Your task to perform on an android device: open app "Google Play Games" Image 0: 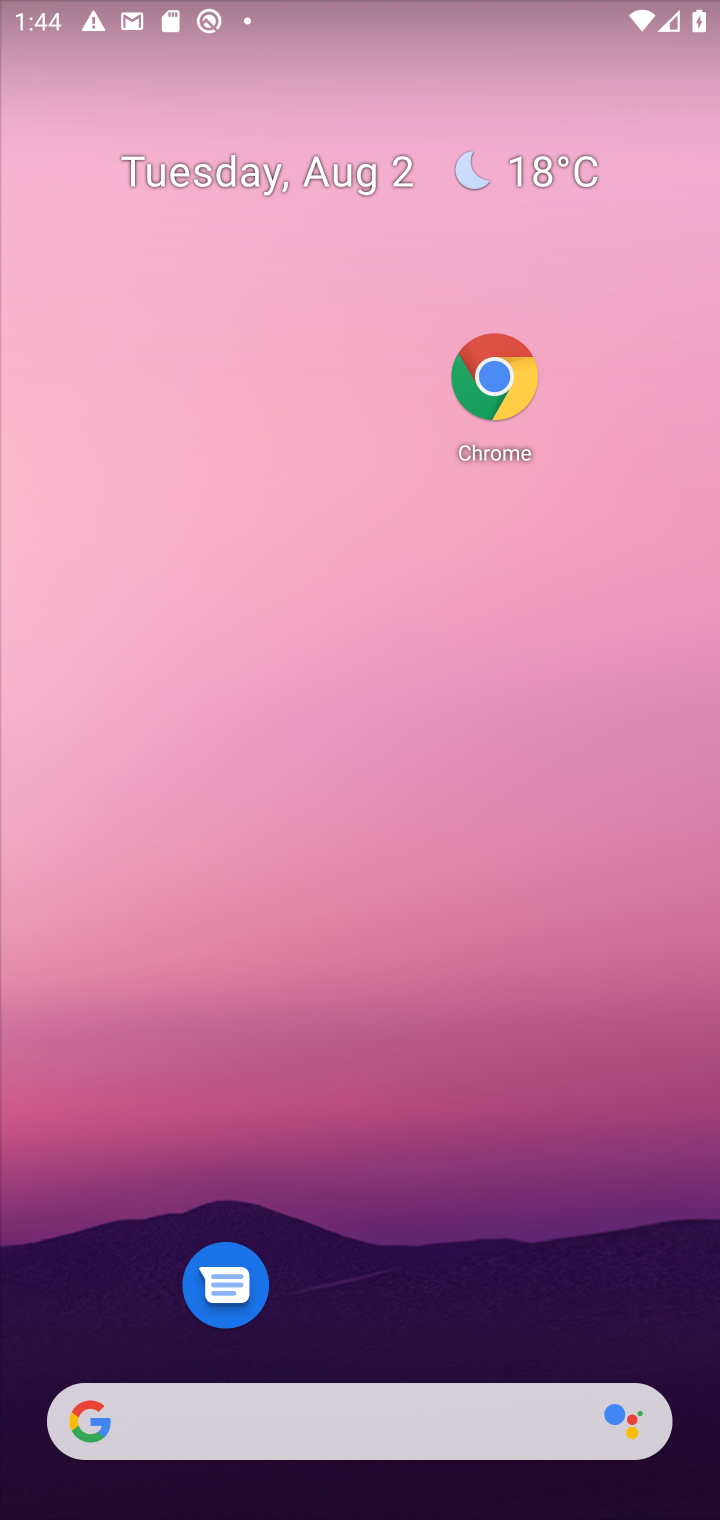
Step 0: press home button
Your task to perform on an android device: open app "Google Play Games" Image 1: 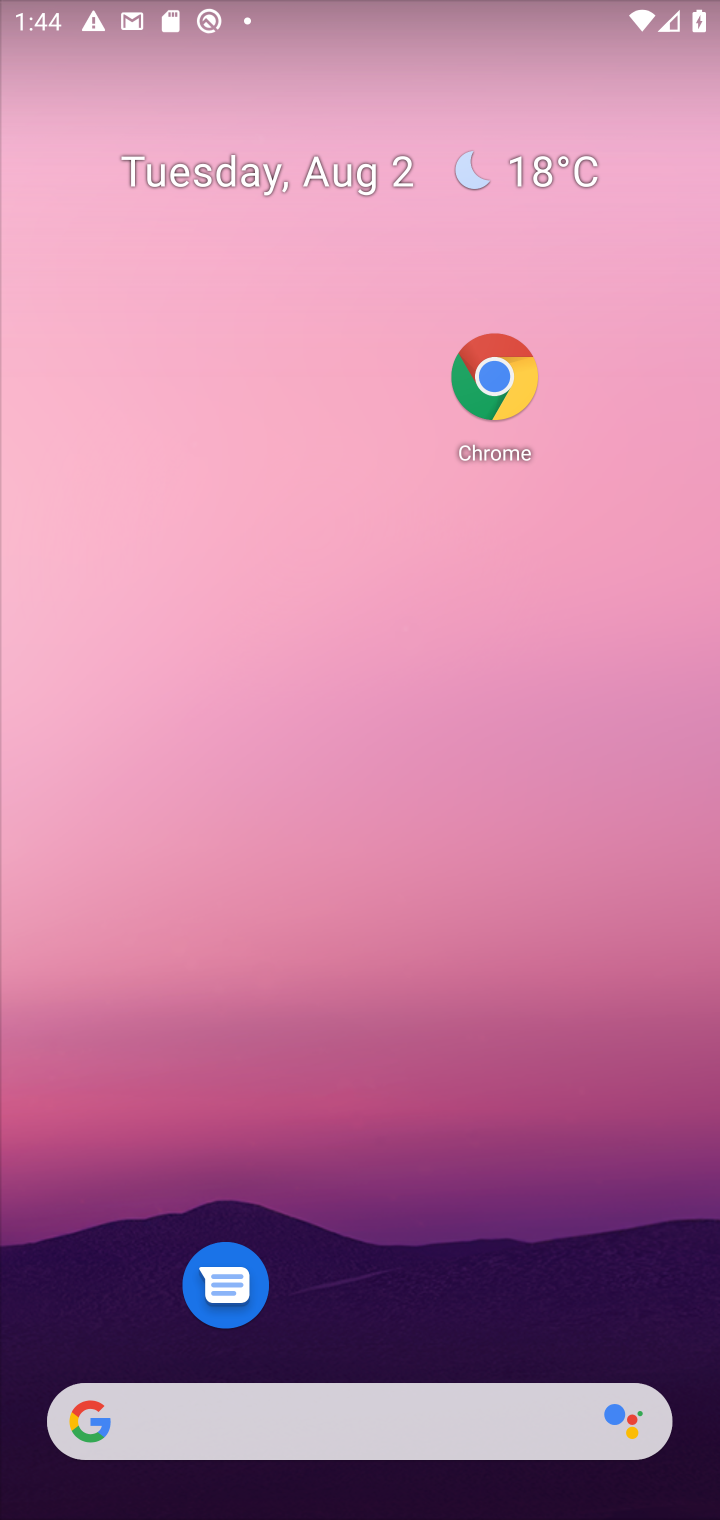
Step 1: drag from (571, 1209) to (576, 510)
Your task to perform on an android device: open app "Google Play Games" Image 2: 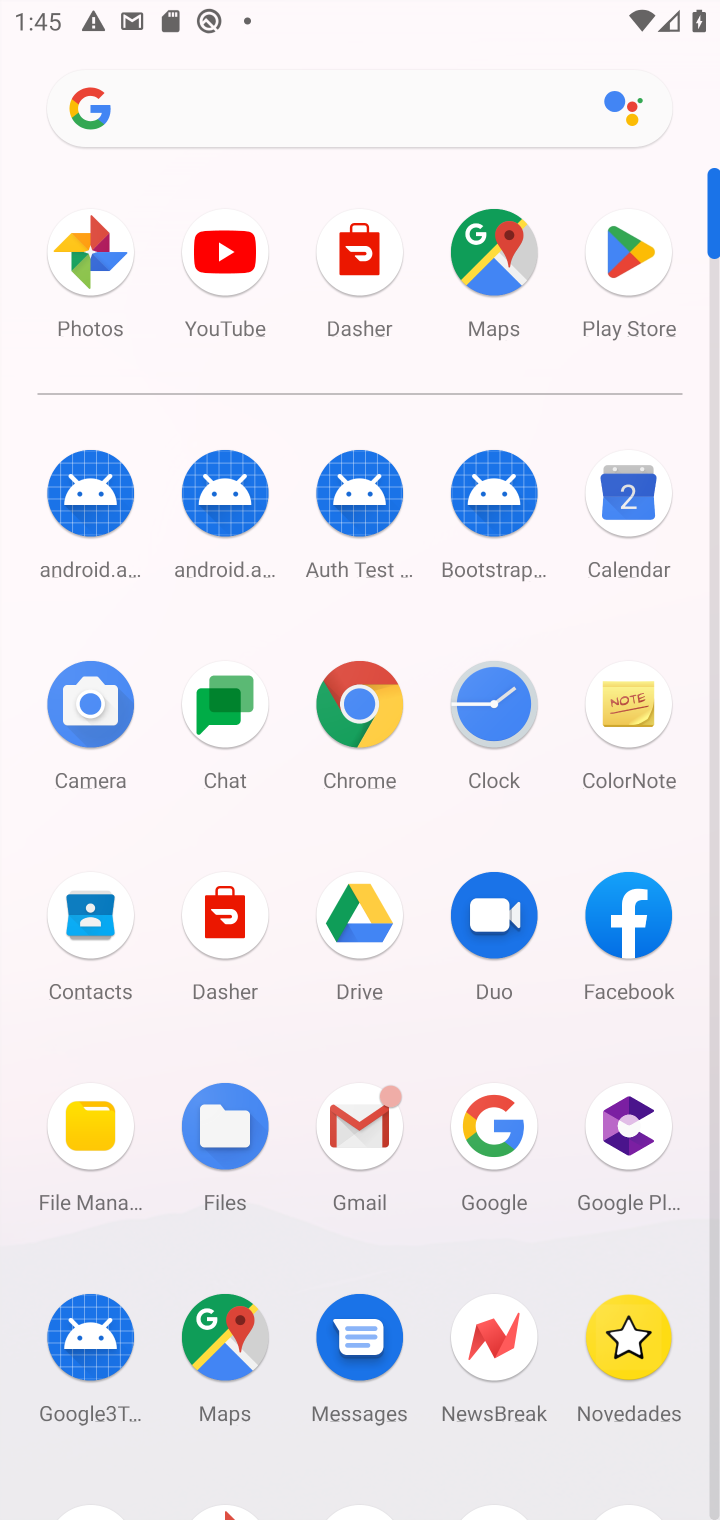
Step 2: click (643, 243)
Your task to perform on an android device: open app "Google Play Games" Image 3: 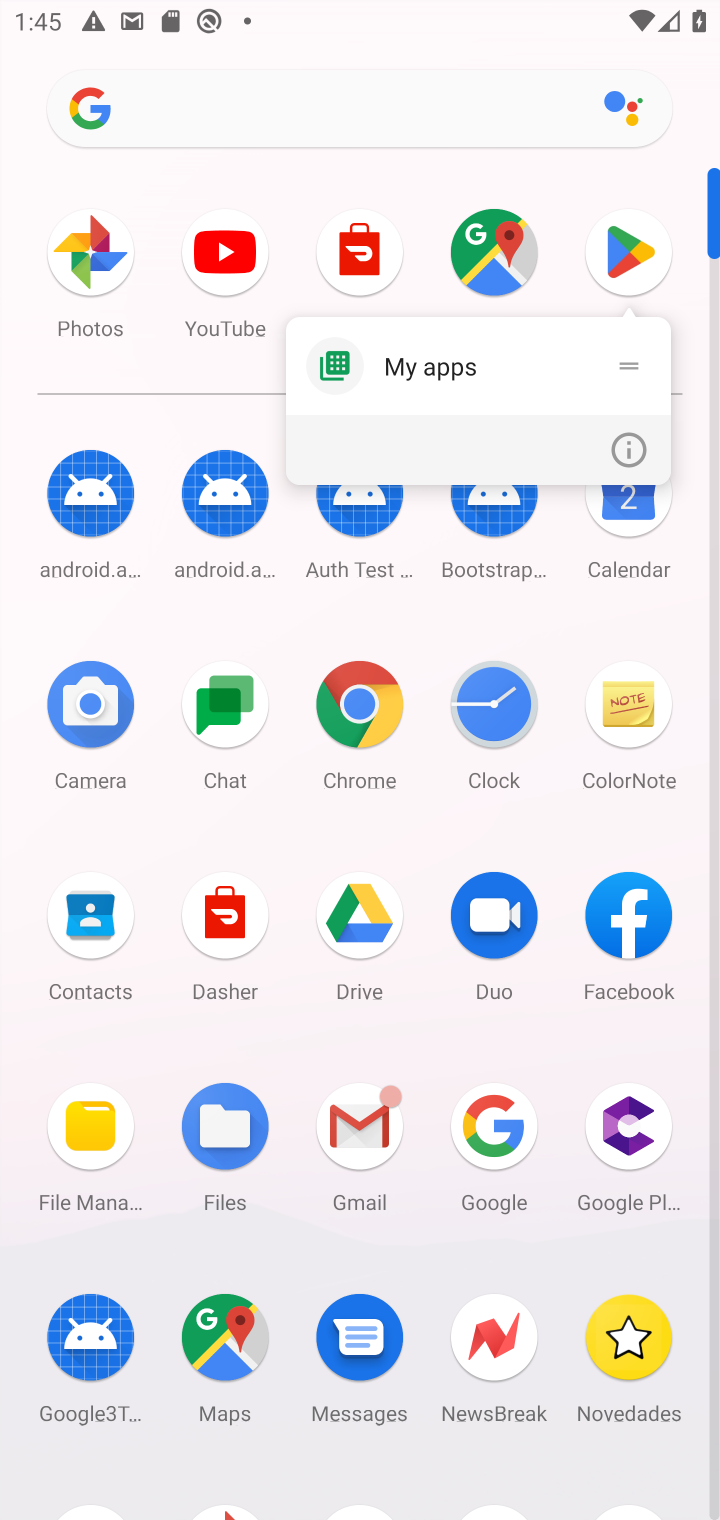
Step 3: click (585, 249)
Your task to perform on an android device: open app "Google Play Games" Image 4: 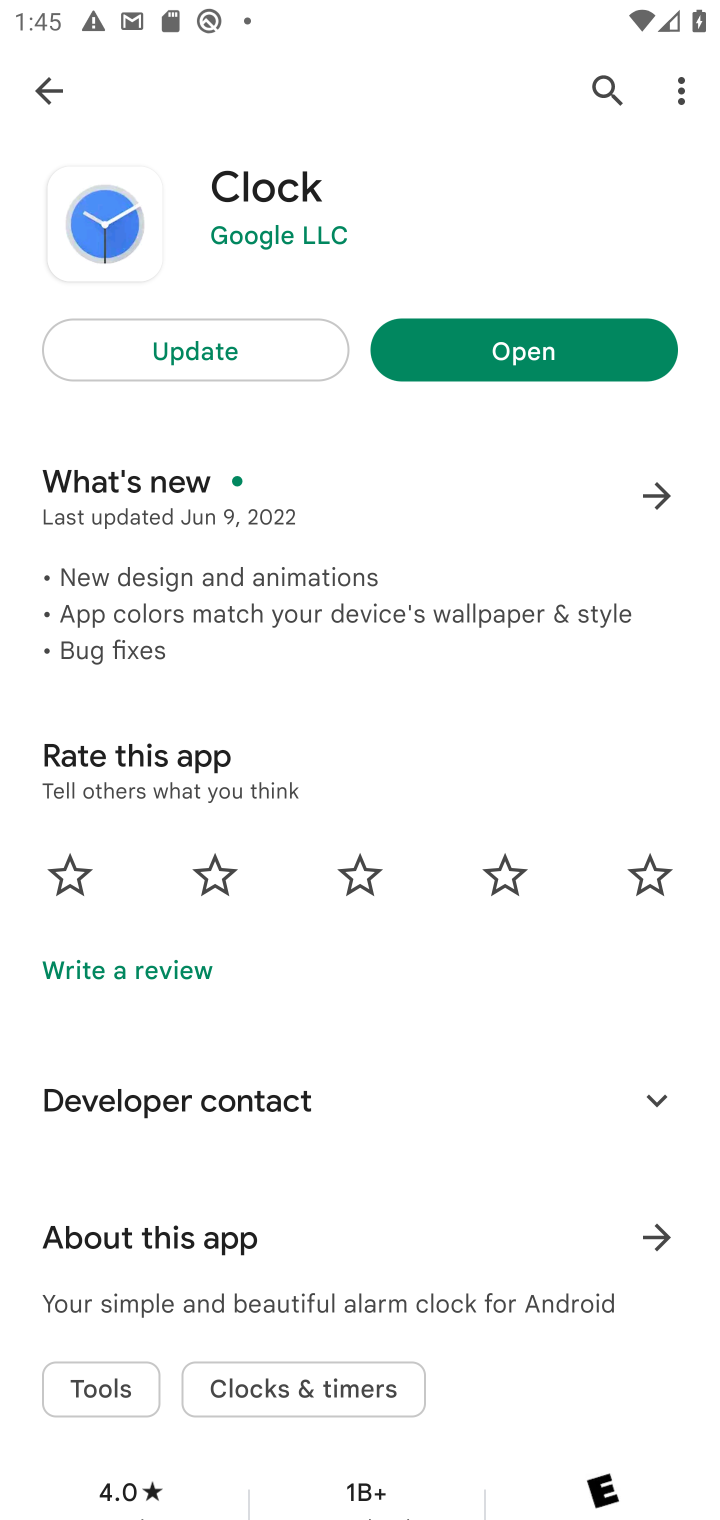
Step 4: click (602, 89)
Your task to perform on an android device: open app "Google Play Games" Image 5: 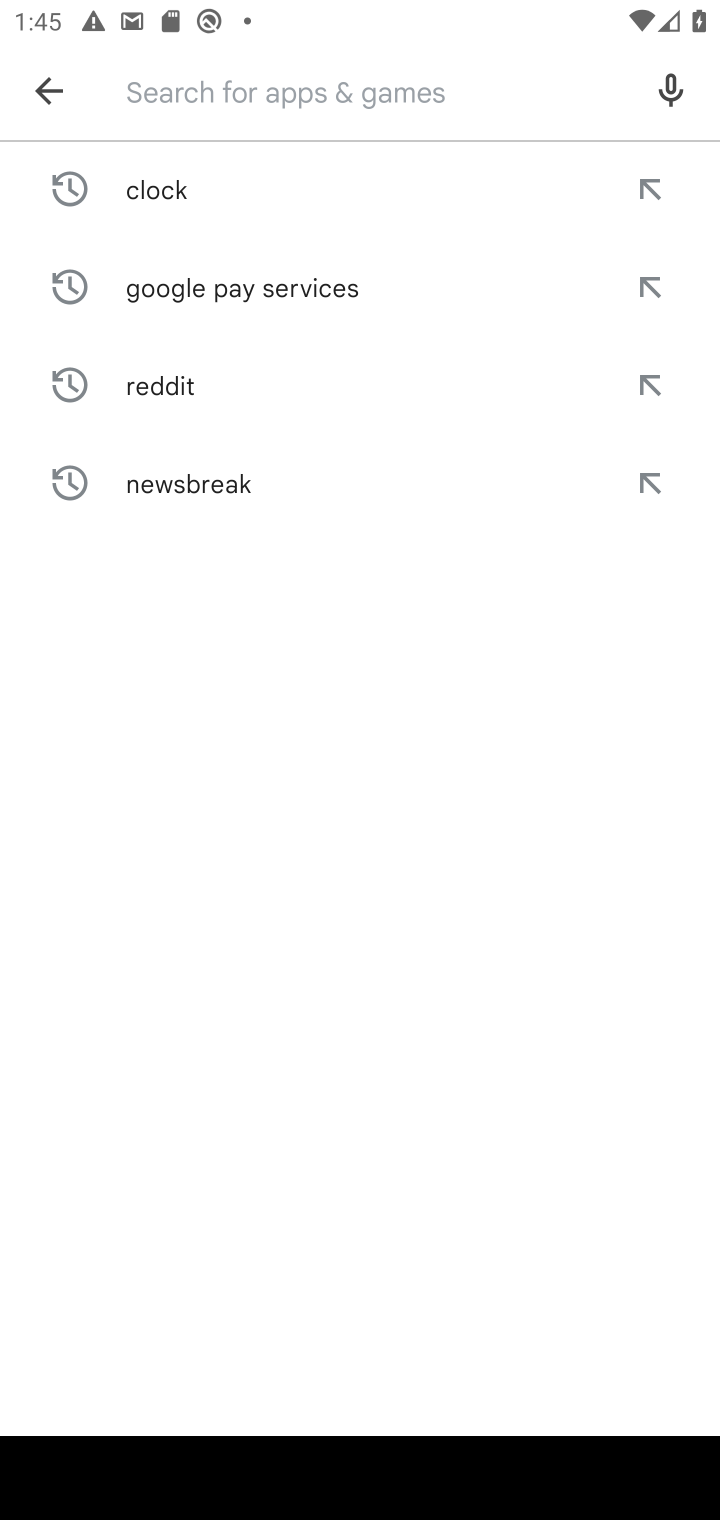
Step 5: click (563, 89)
Your task to perform on an android device: open app "Google Play Games" Image 6: 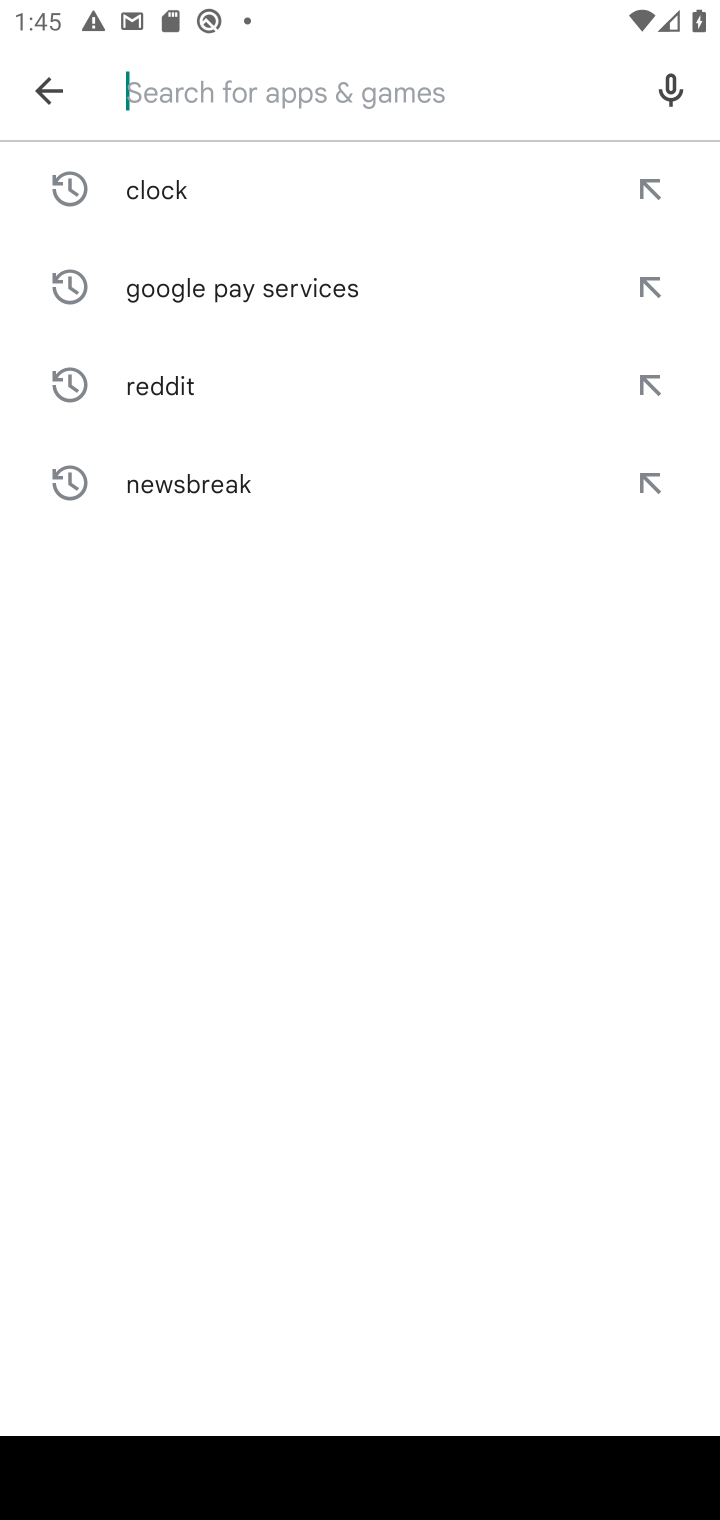
Step 6: type "Google Play Games""
Your task to perform on an android device: open app "Google Play Games" Image 7: 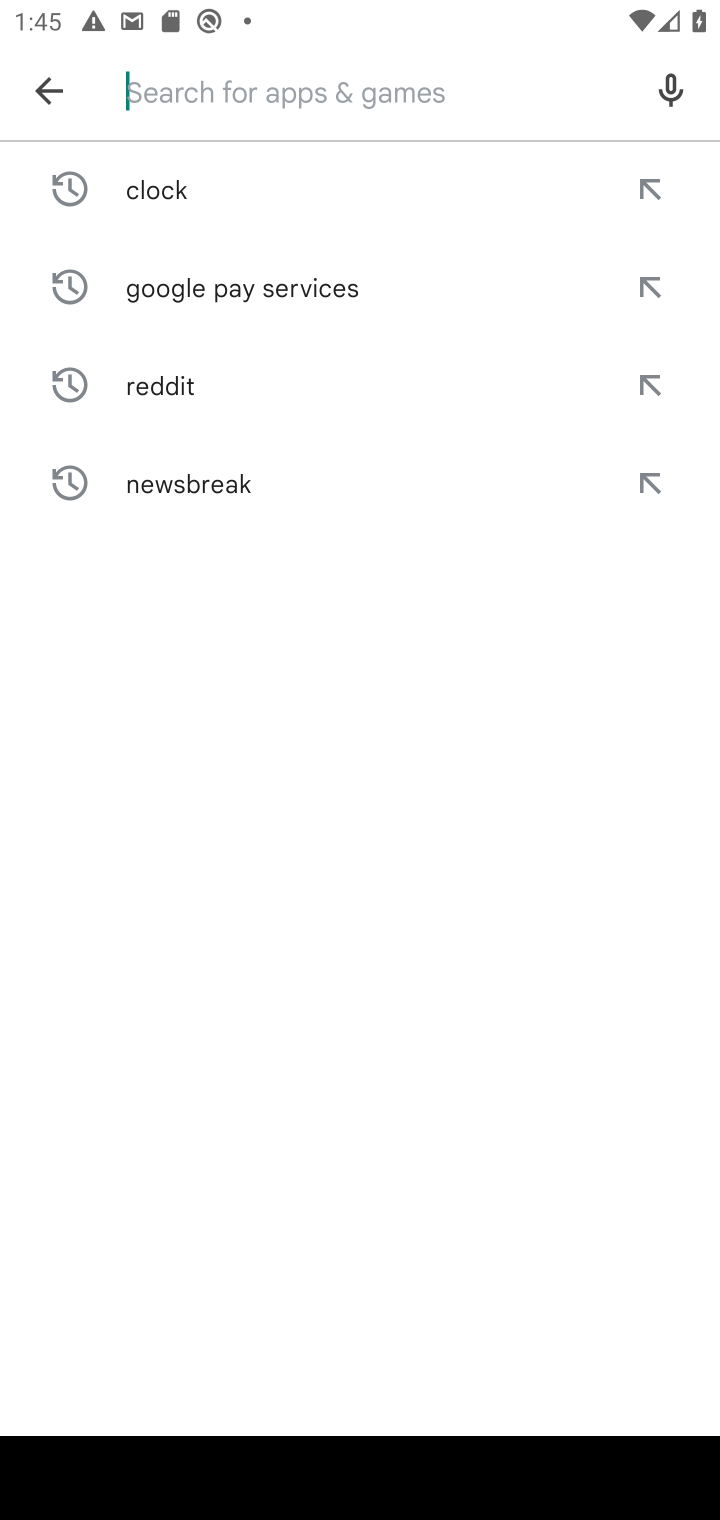
Step 7: type ""
Your task to perform on an android device: open app "Google Play Games" Image 8: 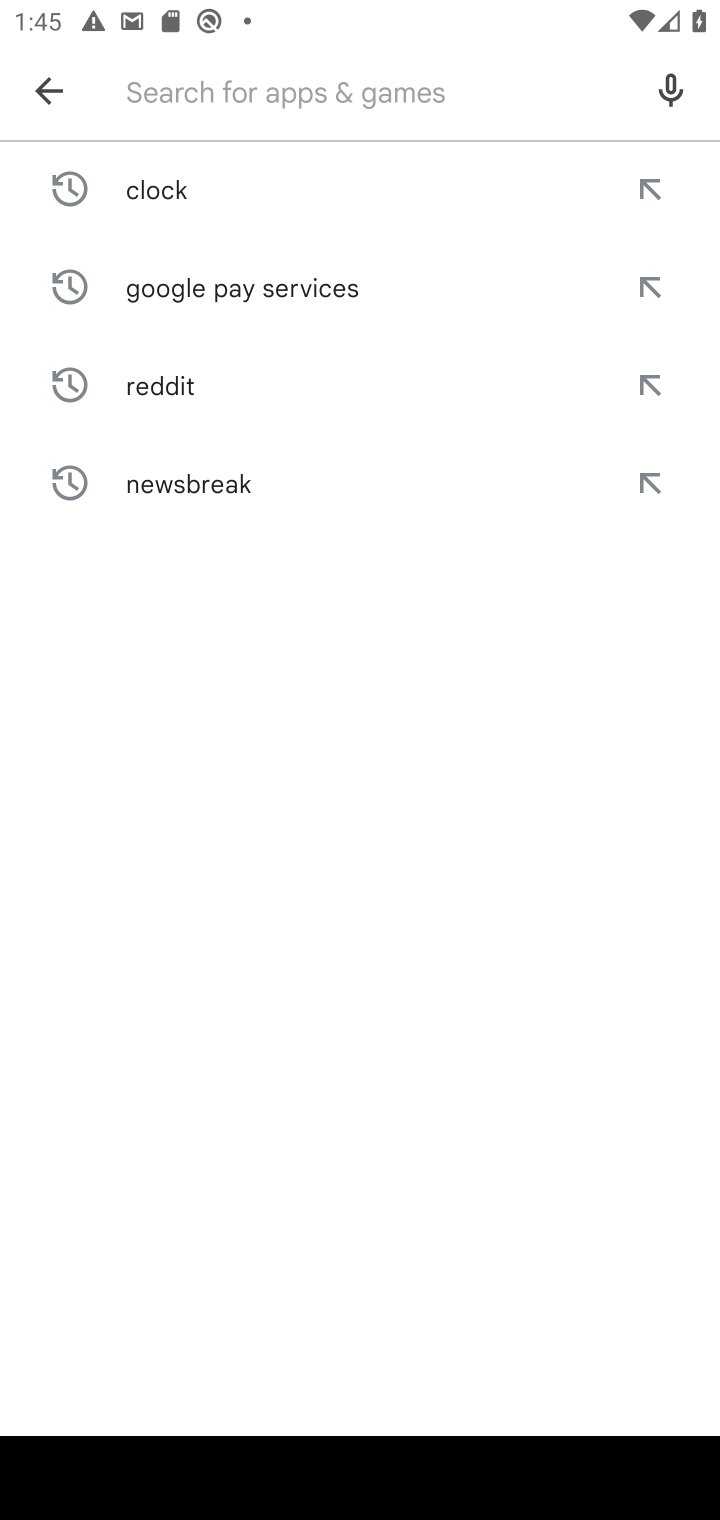
Step 8: type "Google Play Games""
Your task to perform on an android device: open app "Google Play Games" Image 9: 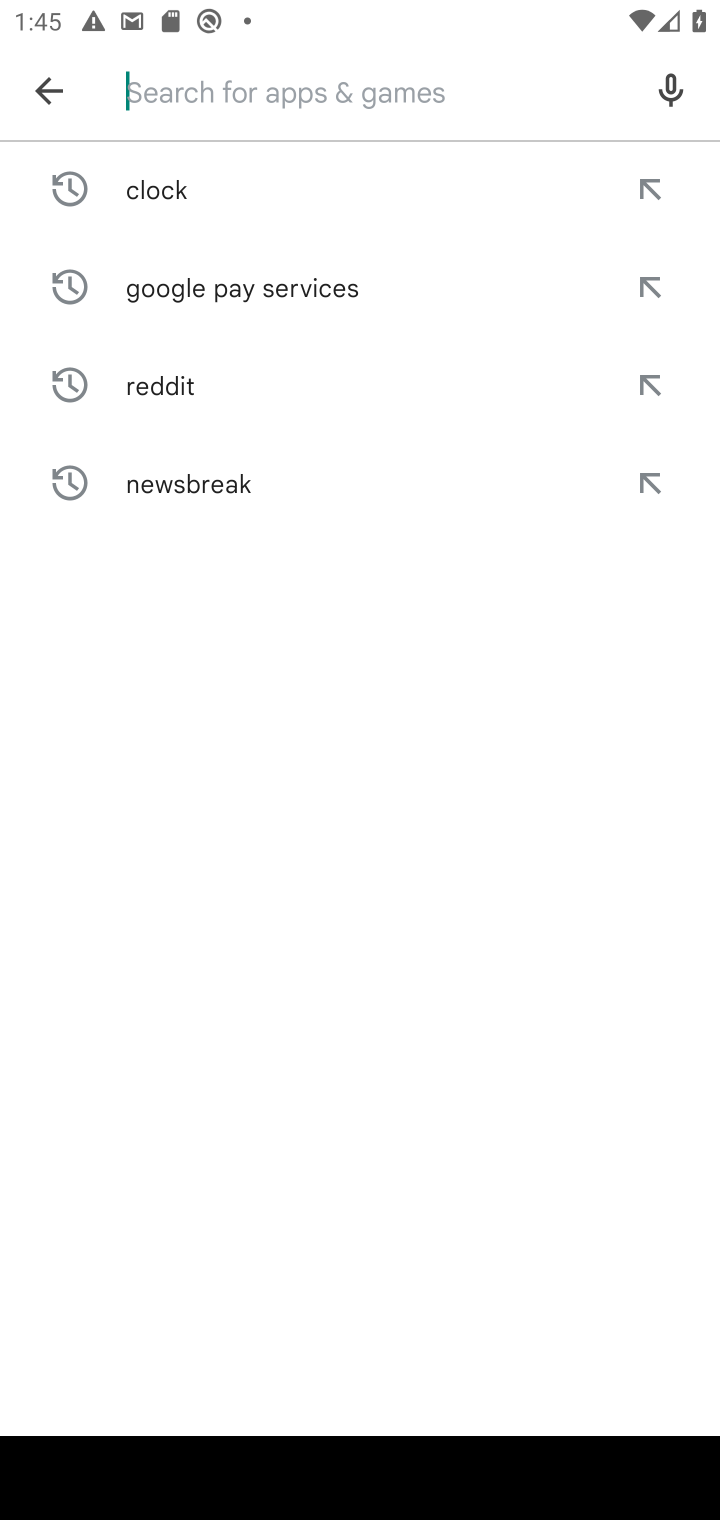
Step 9: type ""
Your task to perform on an android device: open app "Google Play Games" Image 10: 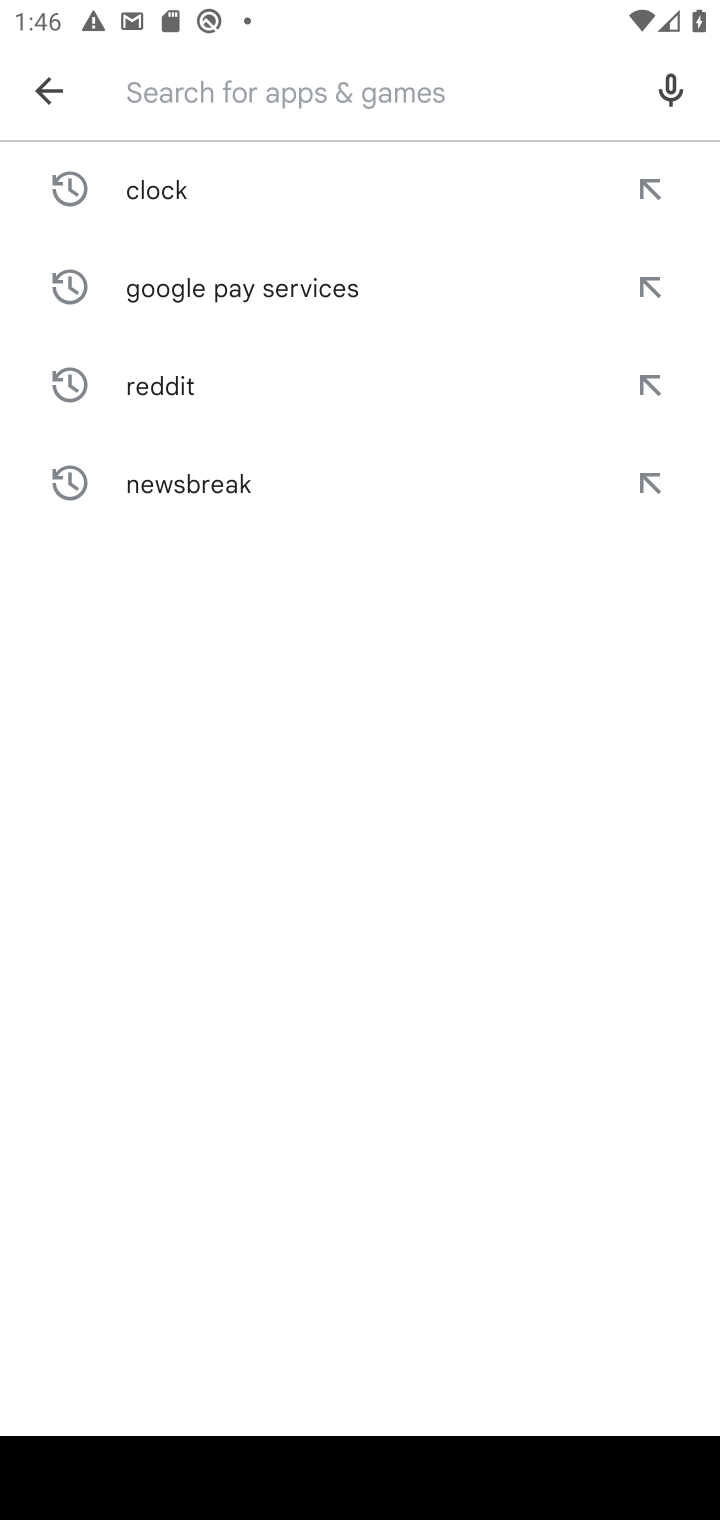
Step 10: type "Google Play Games"
Your task to perform on an android device: open app "Google Play Games" Image 11: 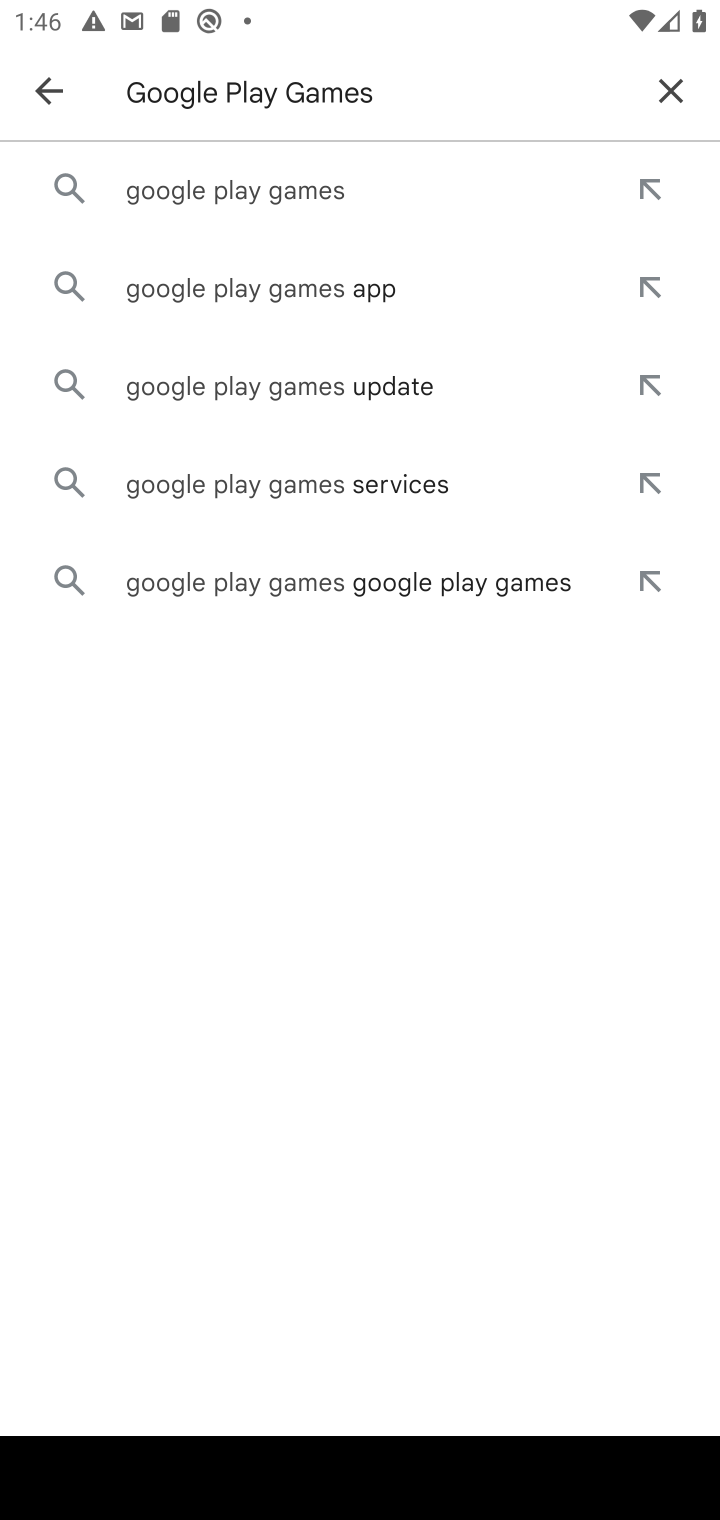
Step 11: click (184, 190)
Your task to perform on an android device: open app "Google Play Games" Image 12: 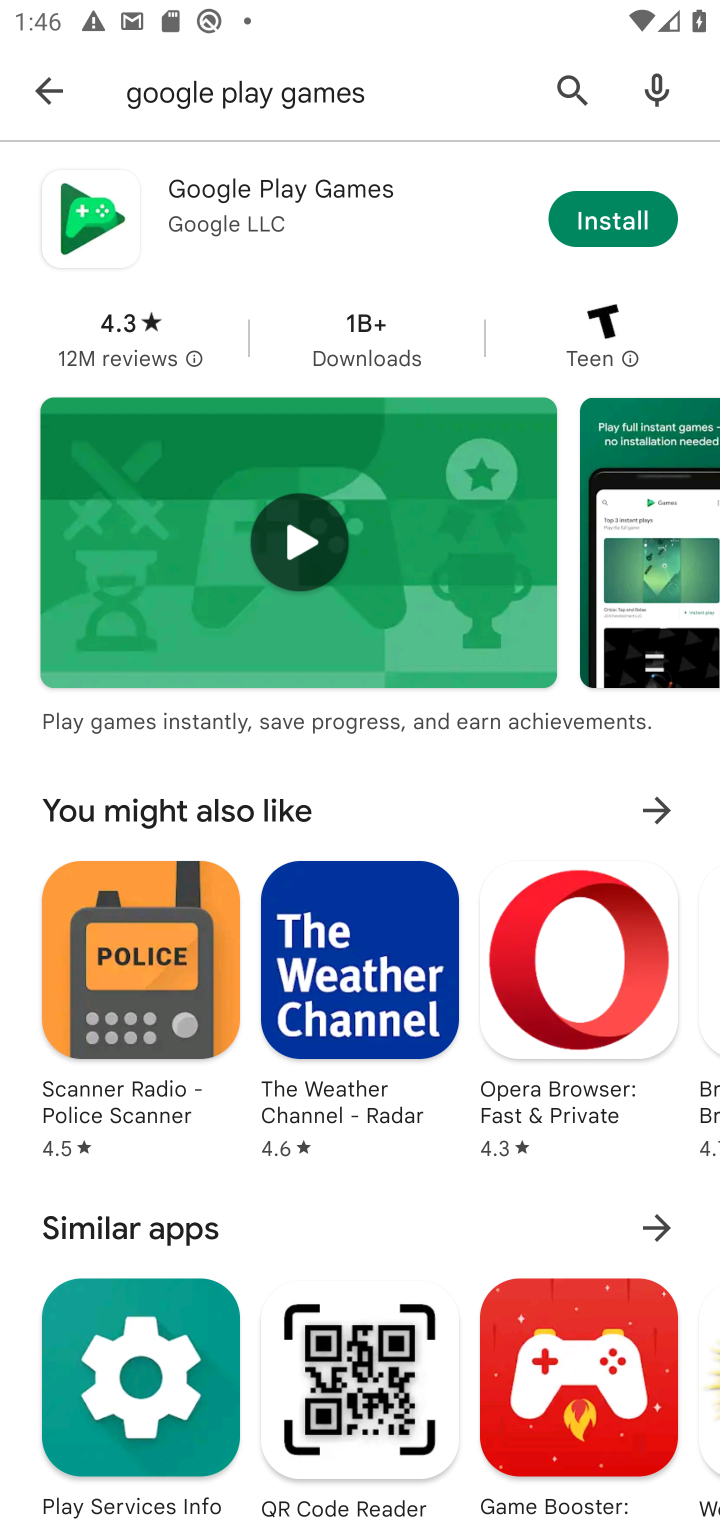
Step 12: click (319, 191)
Your task to perform on an android device: open app "Google Play Games" Image 13: 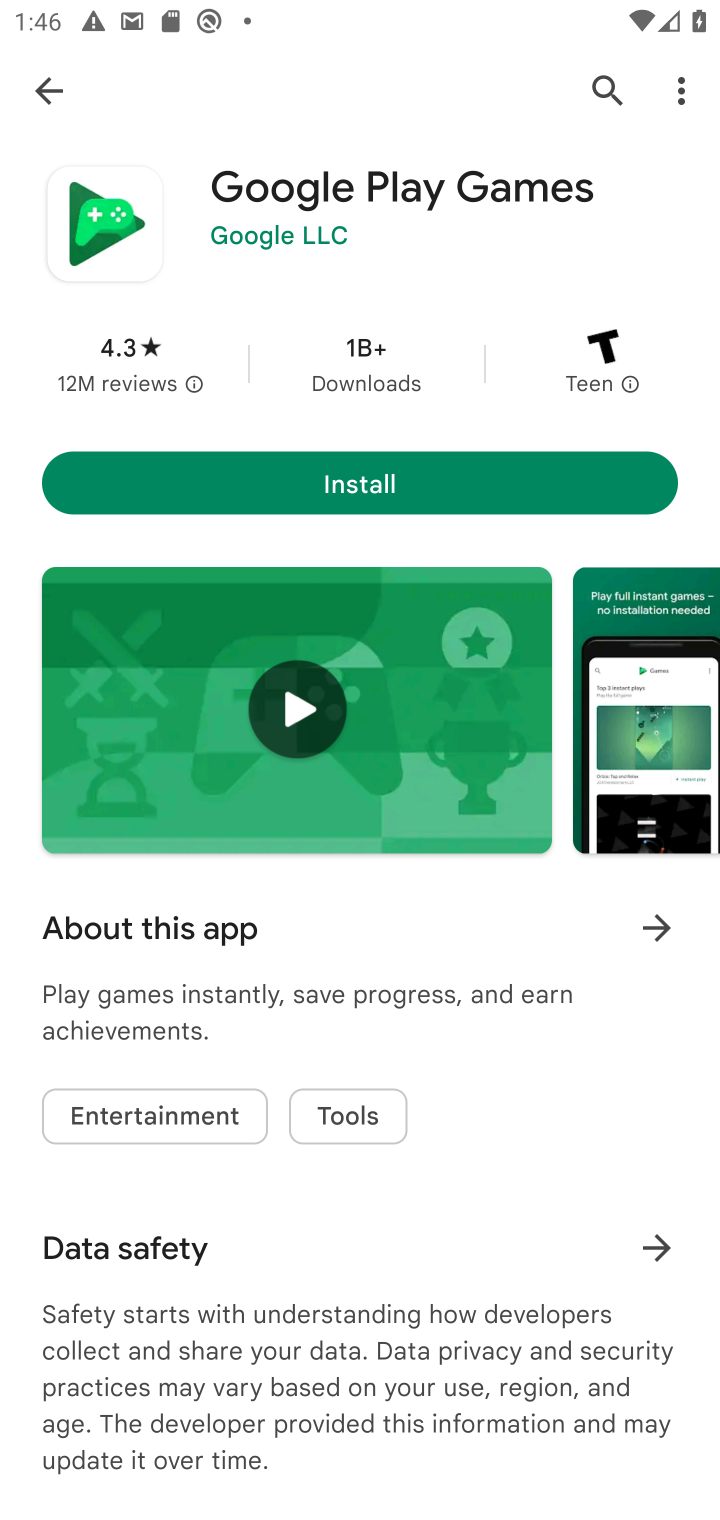
Step 13: task complete